Your task to perform on an android device: toggle show notifications on the lock screen Image 0: 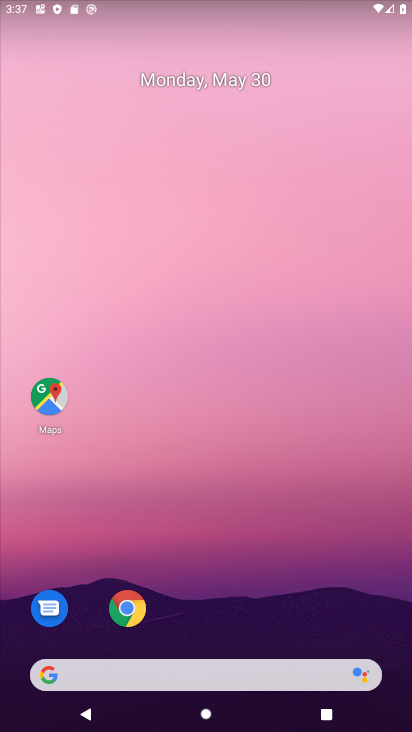
Step 0: drag from (239, 510) to (238, 282)
Your task to perform on an android device: toggle show notifications on the lock screen Image 1: 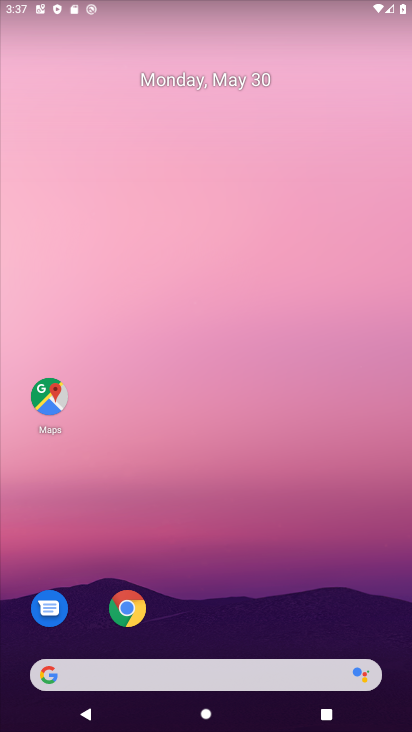
Step 1: drag from (196, 557) to (243, 95)
Your task to perform on an android device: toggle show notifications on the lock screen Image 2: 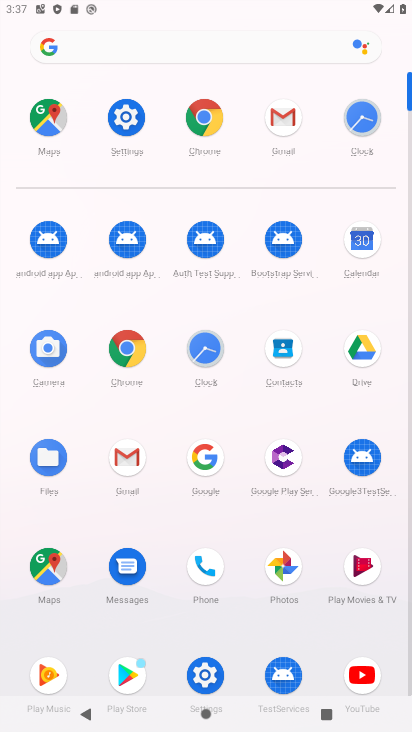
Step 2: click (276, 122)
Your task to perform on an android device: toggle show notifications on the lock screen Image 3: 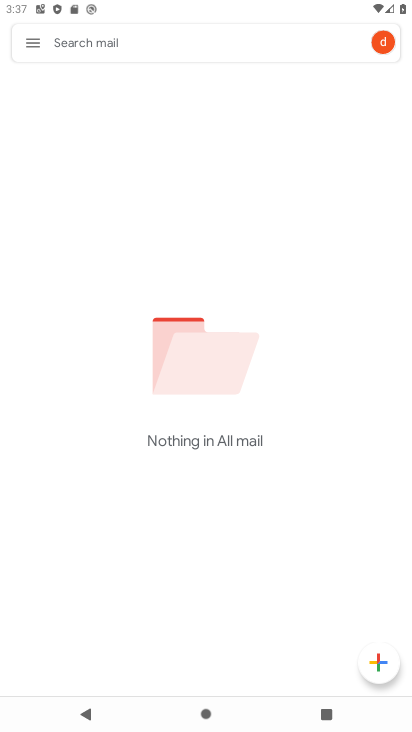
Step 3: press back button
Your task to perform on an android device: toggle show notifications on the lock screen Image 4: 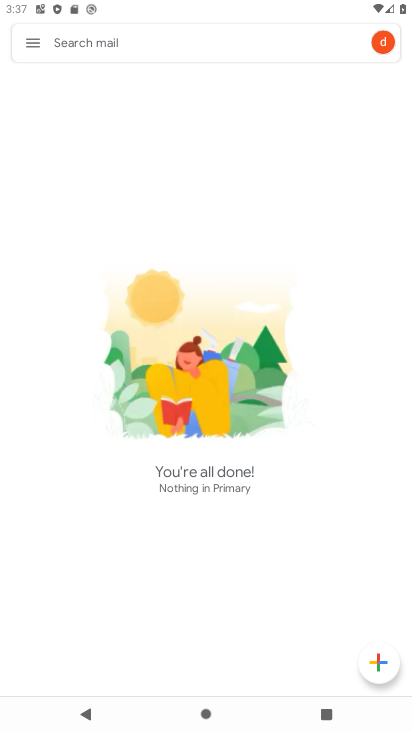
Step 4: press home button
Your task to perform on an android device: toggle show notifications on the lock screen Image 5: 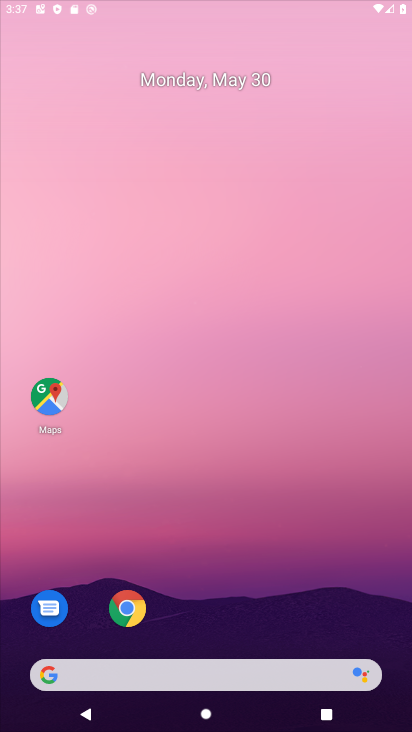
Step 5: drag from (212, 628) to (218, 131)
Your task to perform on an android device: toggle show notifications on the lock screen Image 6: 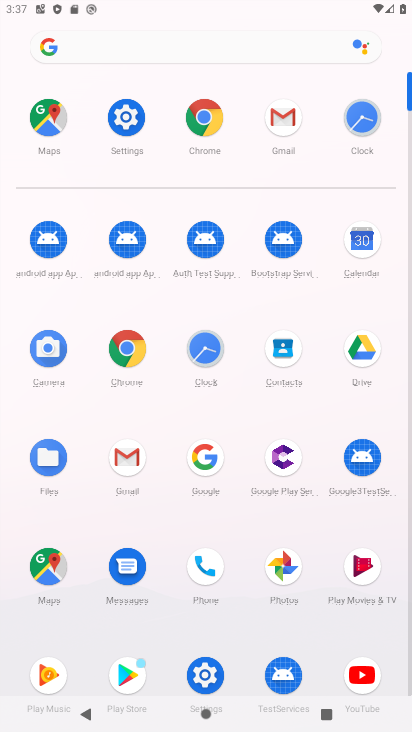
Step 6: click (198, 671)
Your task to perform on an android device: toggle show notifications on the lock screen Image 7: 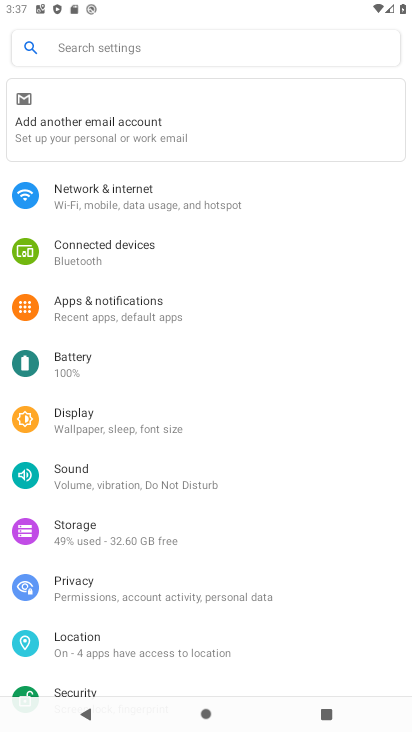
Step 7: click (140, 198)
Your task to perform on an android device: toggle show notifications on the lock screen Image 8: 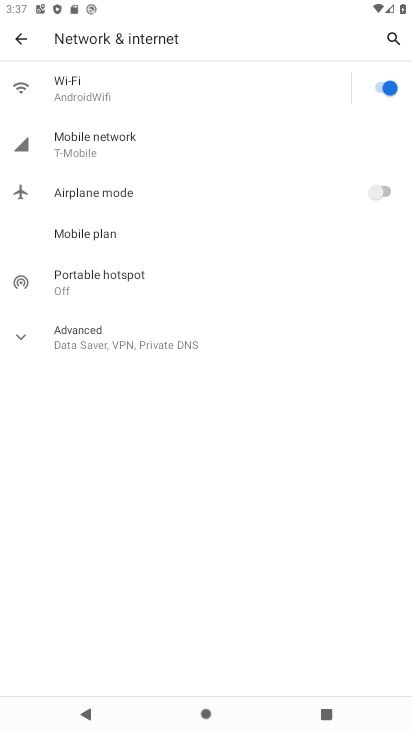
Step 8: click (8, 33)
Your task to perform on an android device: toggle show notifications on the lock screen Image 9: 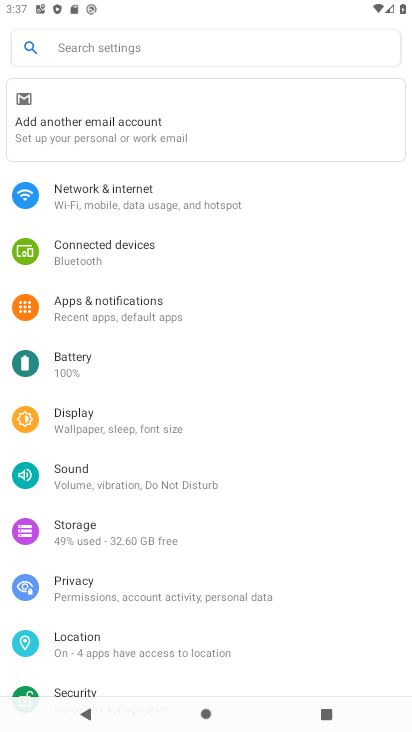
Step 9: click (142, 302)
Your task to perform on an android device: toggle show notifications on the lock screen Image 10: 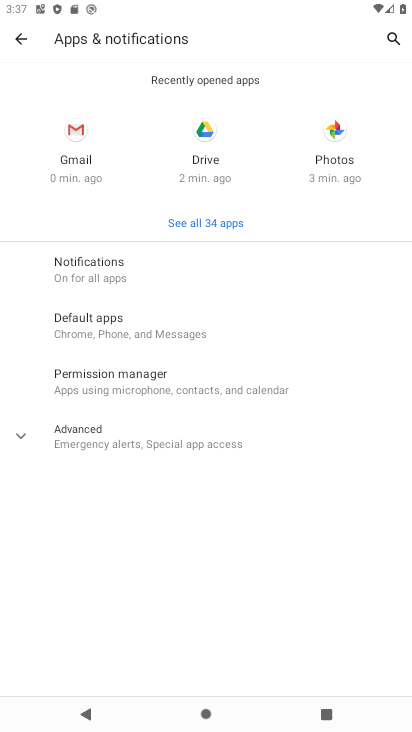
Step 10: click (132, 273)
Your task to perform on an android device: toggle show notifications on the lock screen Image 11: 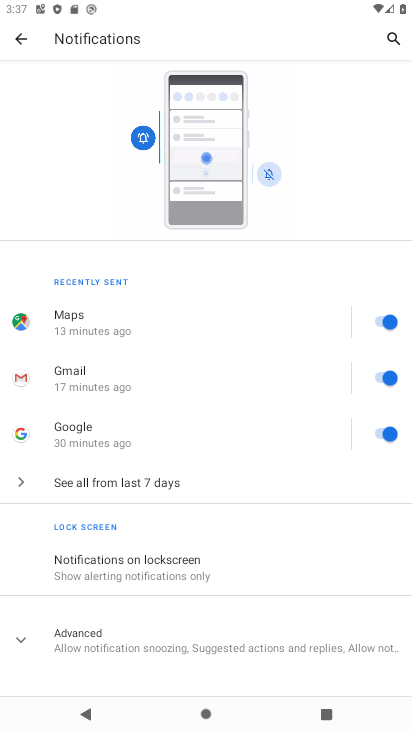
Step 11: click (184, 566)
Your task to perform on an android device: toggle show notifications on the lock screen Image 12: 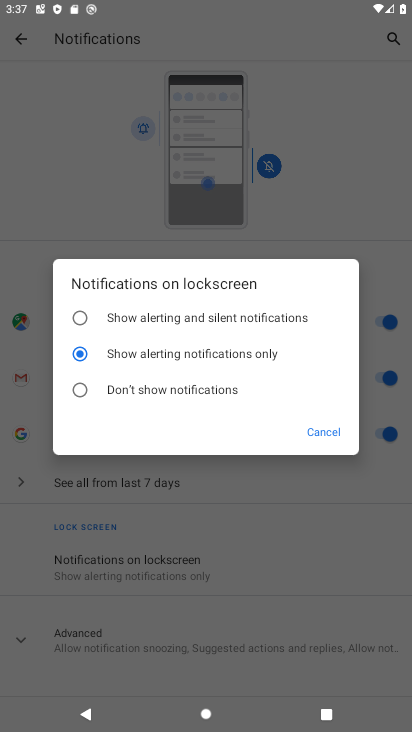
Step 12: click (160, 305)
Your task to perform on an android device: toggle show notifications on the lock screen Image 13: 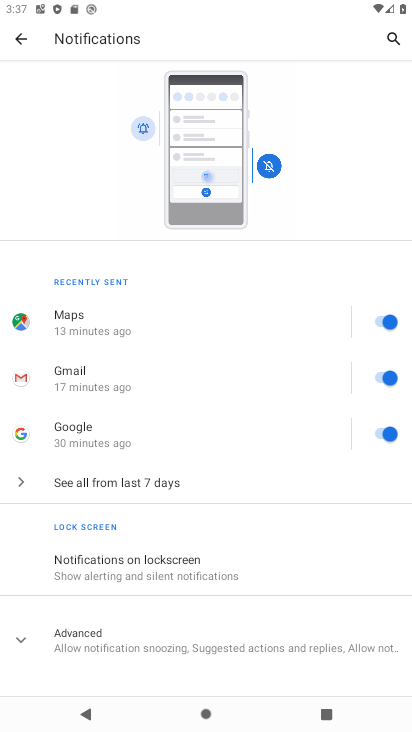
Step 13: task complete